Your task to perform on an android device: Search for the best books on Goodreads. Image 0: 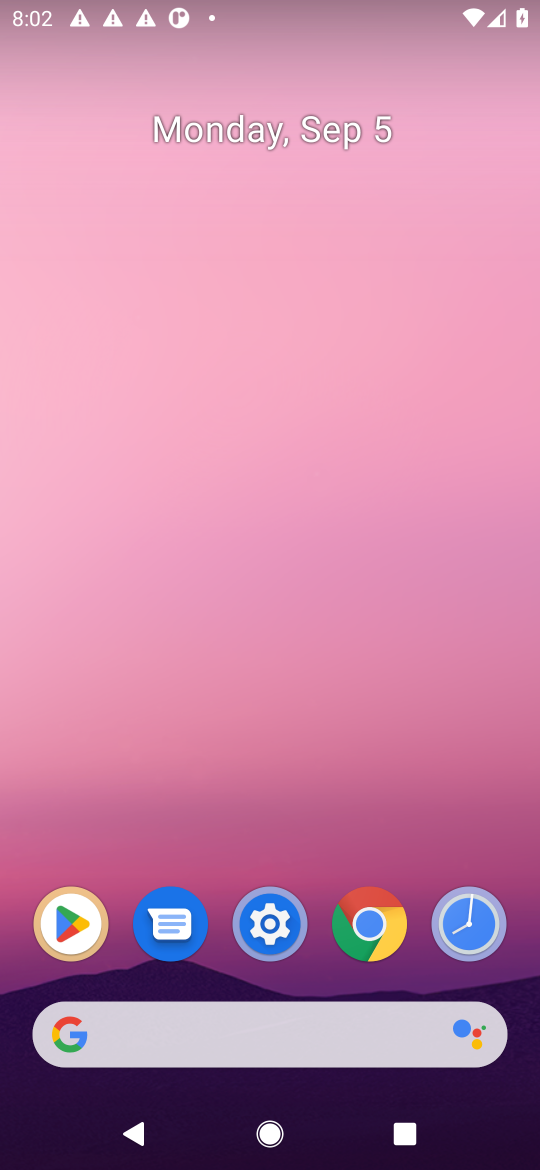
Step 0: click (410, 1022)
Your task to perform on an android device: Search for the best books on Goodreads. Image 1: 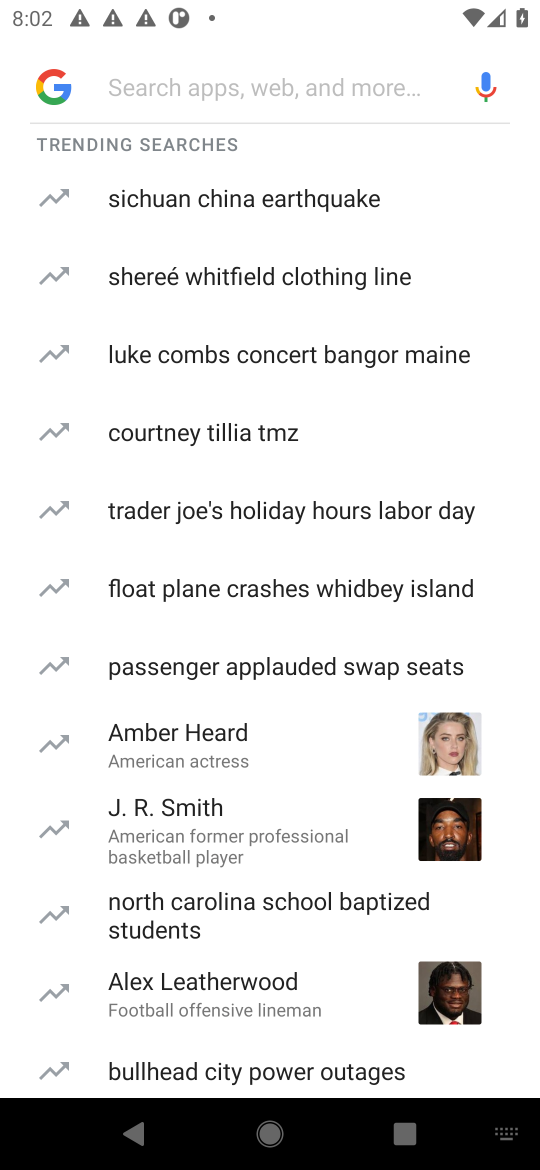
Step 1: type "goodreads "
Your task to perform on an android device: Search for the best books on Goodreads. Image 2: 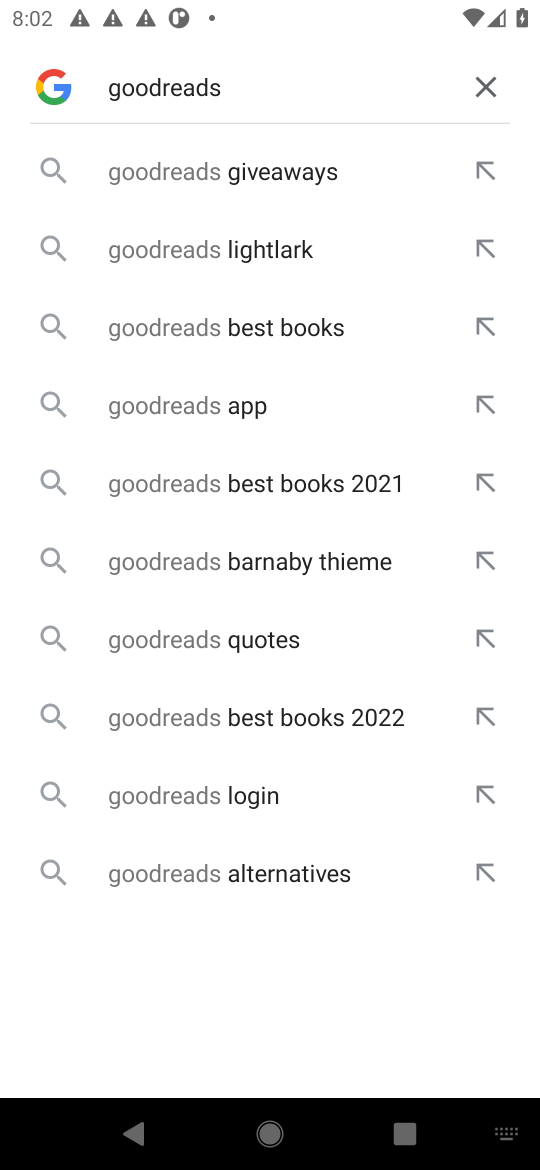
Step 2: press enter
Your task to perform on an android device: Search for the best books on Goodreads. Image 3: 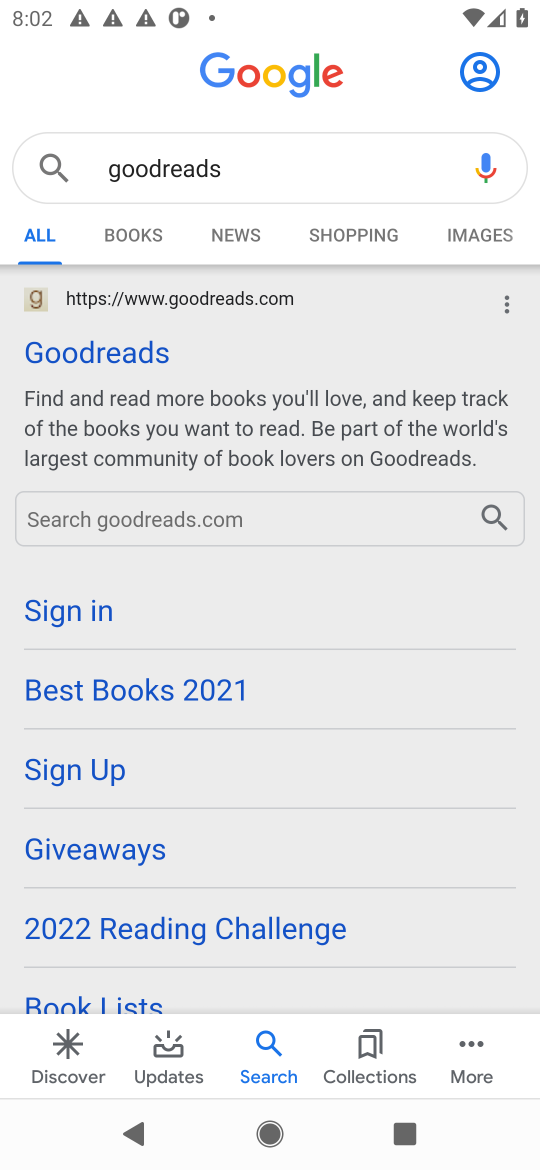
Step 3: click (138, 354)
Your task to perform on an android device: Search for the best books on Goodreads. Image 4: 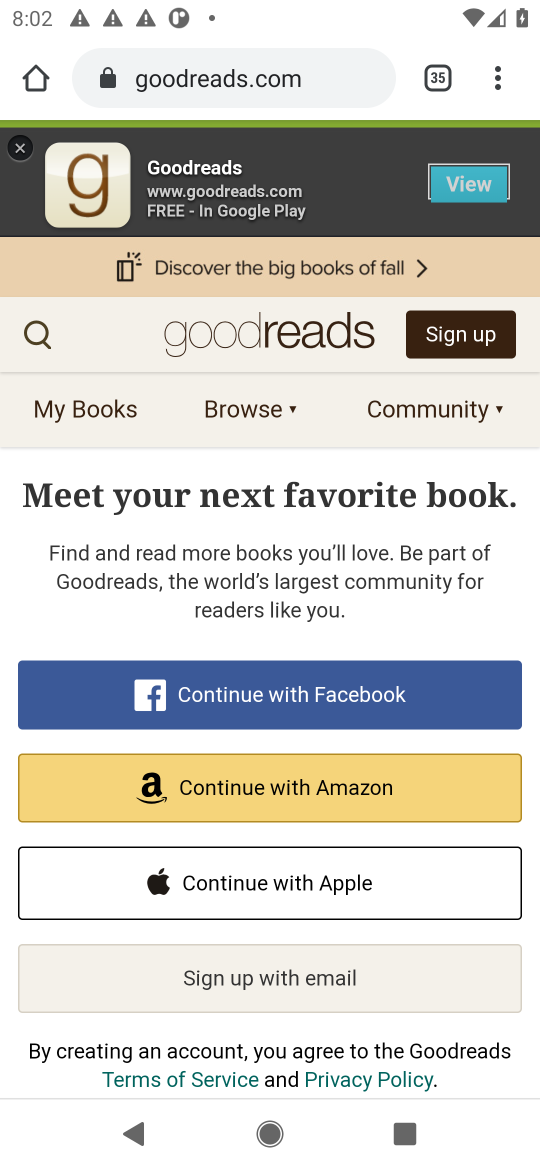
Step 4: click (48, 335)
Your task to perform on an android device: Search for the best books on Goodreads. Image 5: 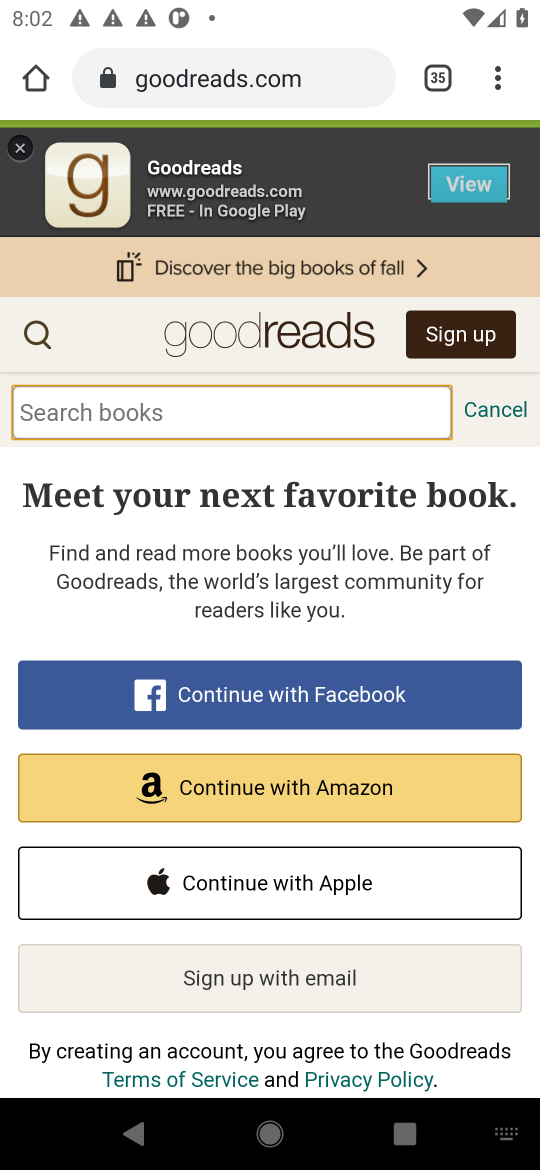
Step 5: type "best books"
Your task to perform on an android device: Search for the best books on Goodreads. Image 6: 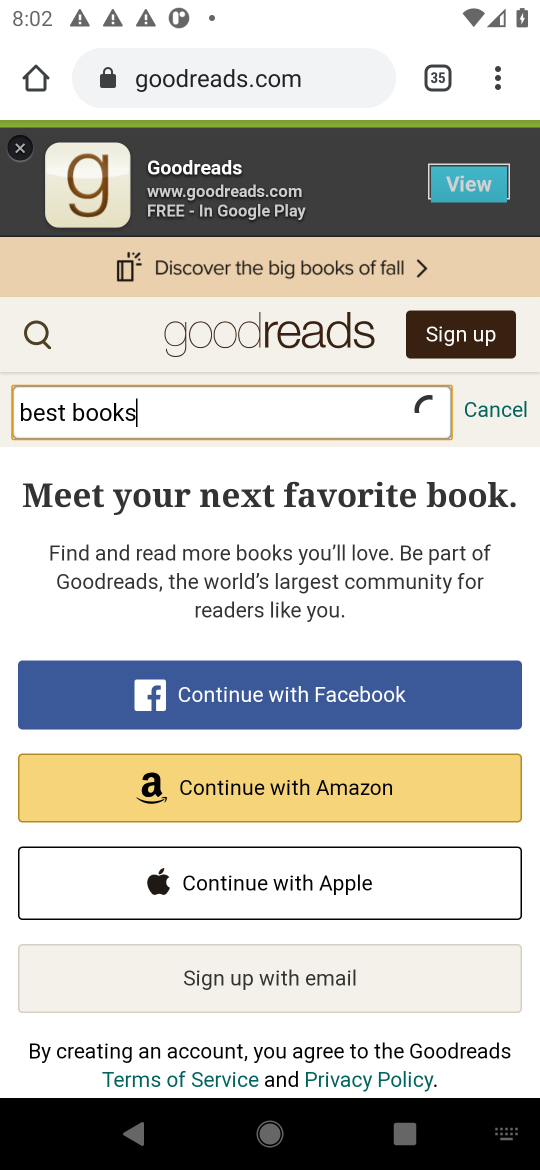
Step 6: press enter
Your task to perform on an android device: Search for the best books on Goodreads. Image 7: 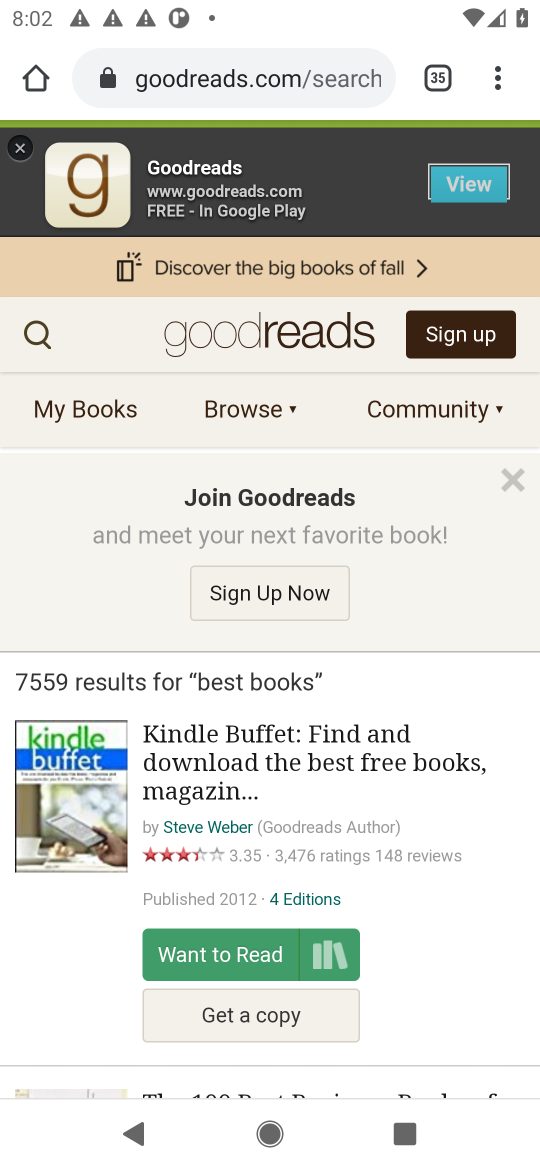
Step 7: task complete